Your task to perform on an android device: open device folders in google photos Image 0: 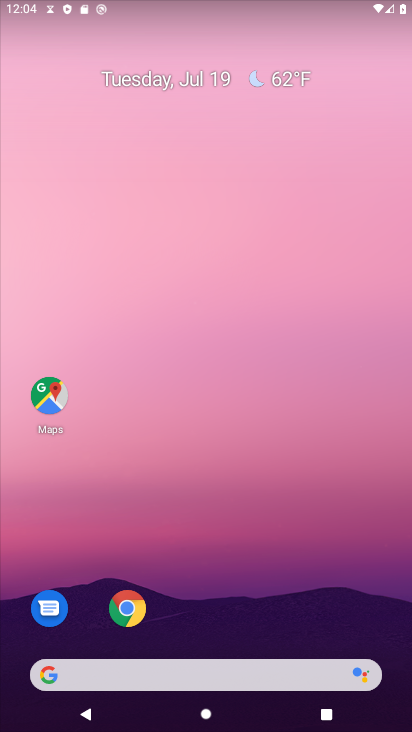
Step 0: drag from (365, 630) to (222, 2)
Your task to perform on an android device: open device folders in google photos Image 1: 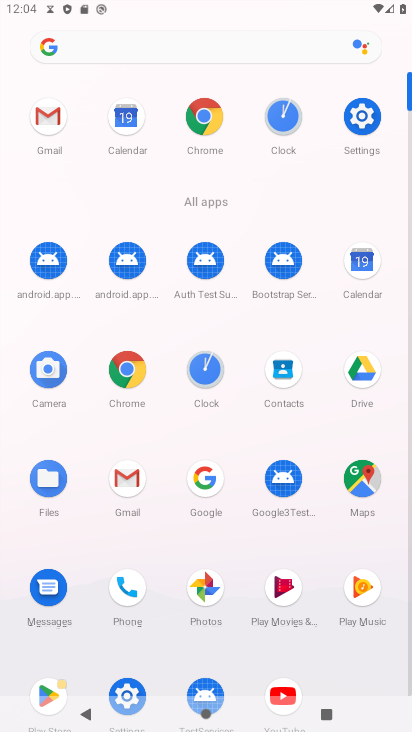
Step 1: click (201, 599)
Your task to perform on an android device: open device folders in google photos Image 2: 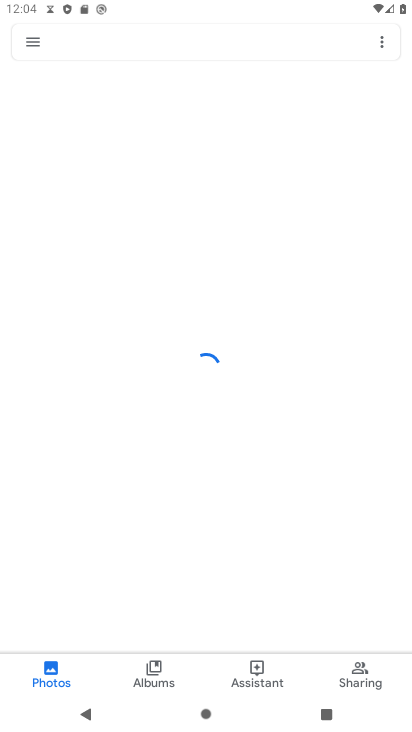
Step 2: click (36, 47)
Your task to perform on an android device: open device folders in google photos Image 3: 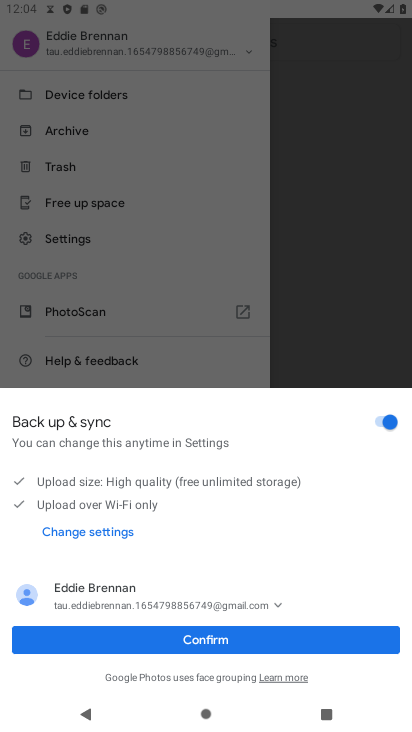
Step 3: click (206, 638)
Your task to perform on an android device: open device folders in google photos Image 4: 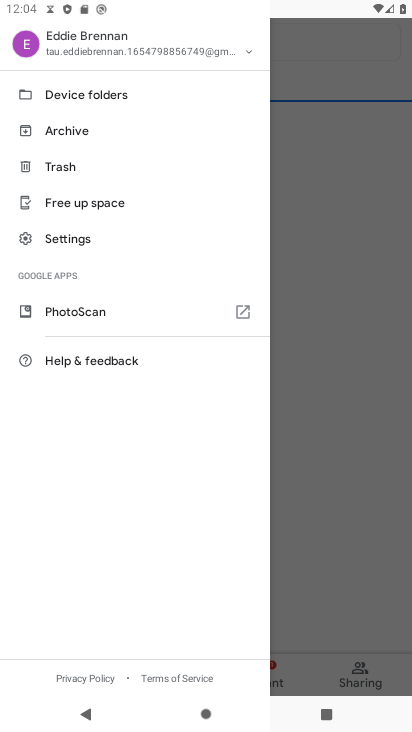
Step 4: click (112, 97)
Your task to perform on an android device: open device folders in google photos Image 5: 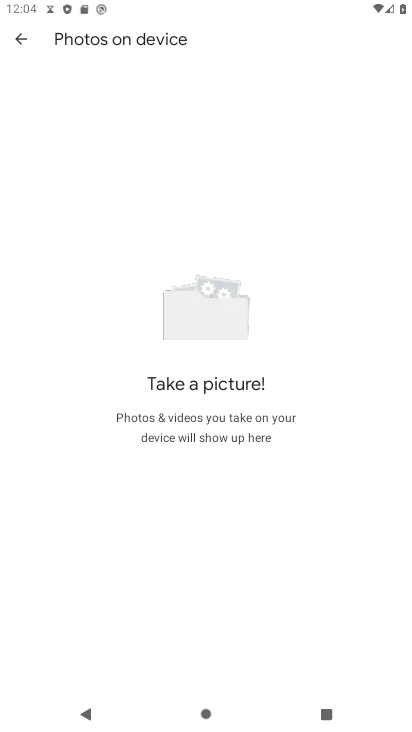
Step 5: task complete